Your task to perform on an android device: toggle pop-ups in chrome Image 0: 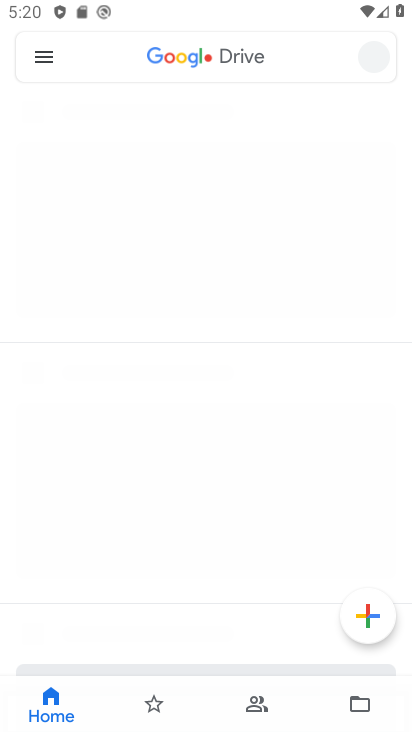
Step 0: press home button
Your task to perform on an android device: toggle pop-ups in chrome Image 1: 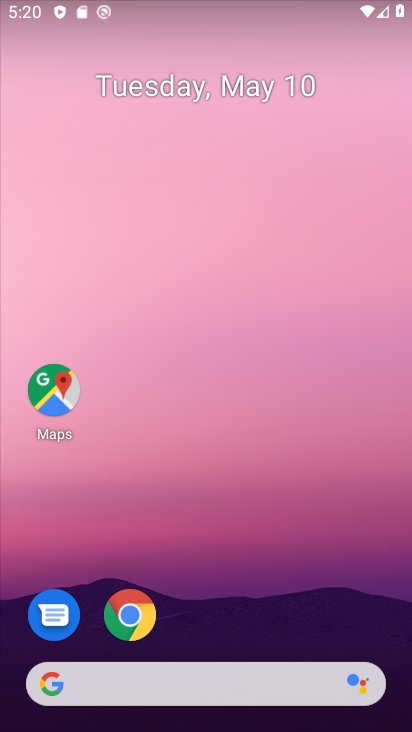
Step 1: click (147, 601)
Your task to perform on an android device: toggle pop-ups in chrome Image 2: 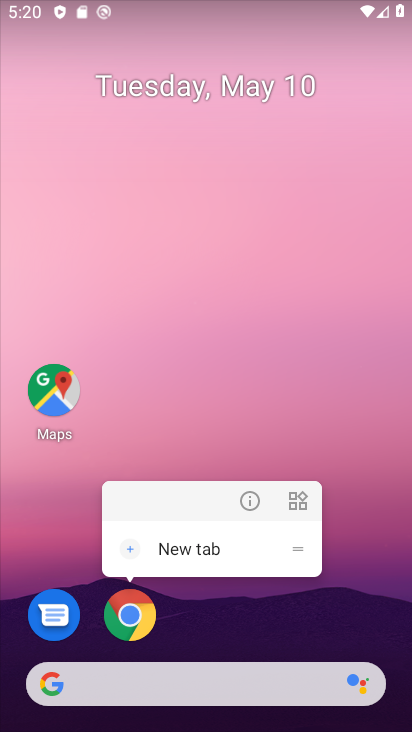
Step 2: click (239, 495)
Your task to perform on an android device: toggle pop-ups in chrome Image 3: 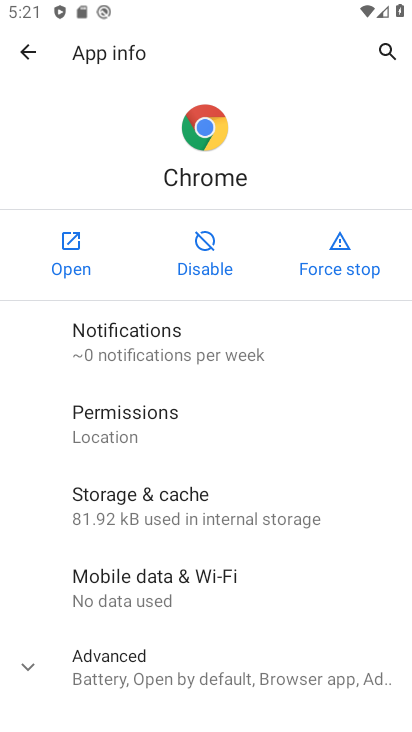
Step 3: click (67, 236)
Your task to perform on an android device: toggle pop-ups in chrome Image 4: 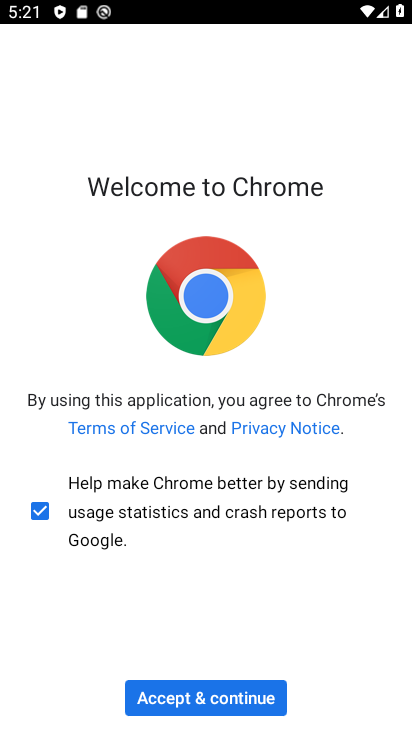
Step 4: click (268, 695)
Your task to perform on an android device: toggle pop-ups in chrome Image 5: 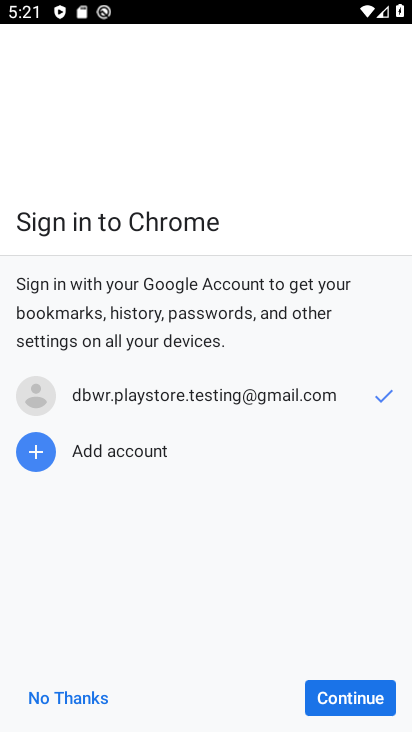
Step 5: click (353, 705)
Your task to perform on an android device: toggle pop-ups in chrome Image 6: 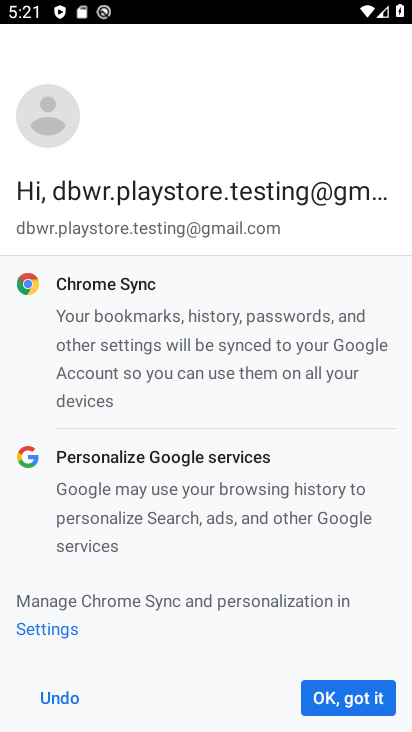
Step 6: click (353, 703)
Your task to perform on an android device: toggle pop-ups in chrome Image 7: 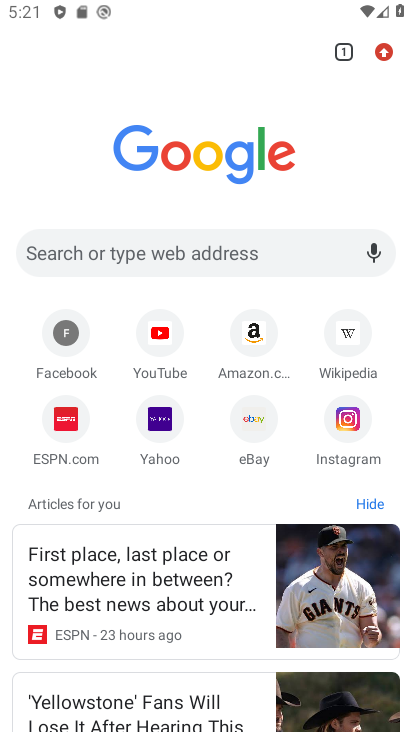
Step 7: click (388, 57)
Your task to perform on an android device: toggle pop-ups in chrome Image 8: 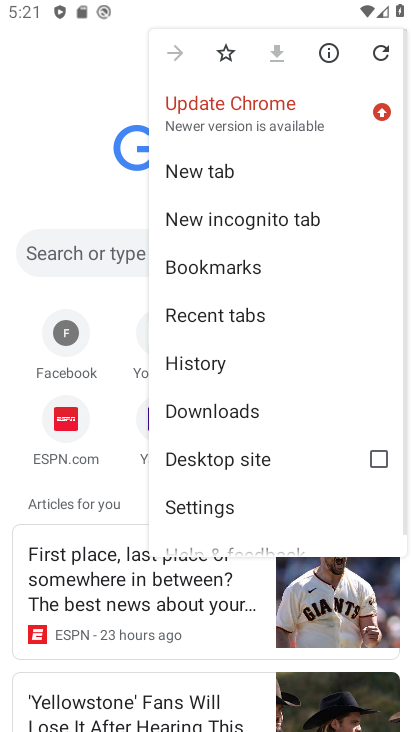
Step 8: click (207, 511)
Your task to perform on an android device: toggle pop-ups in chrome Image 9: 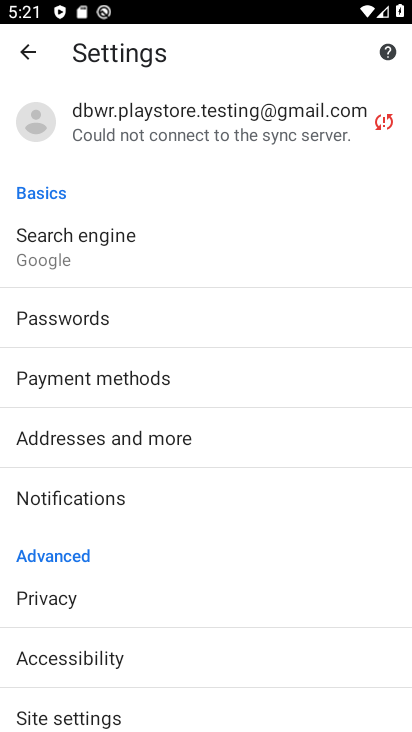
Step 9: drag from (98, 669) to (103, 459)
Your task to perform on an android device: toggle pop-ups in chrome Image 10: 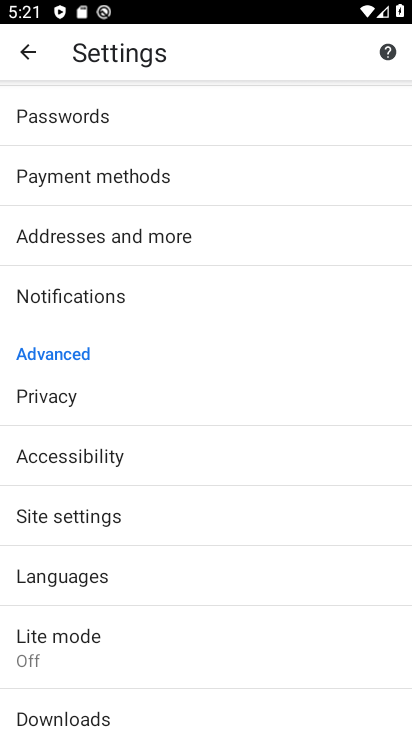
Step 10: click (89, 527)
Your task to perform on an android device: toggle pop-ups in chrome Image 11: 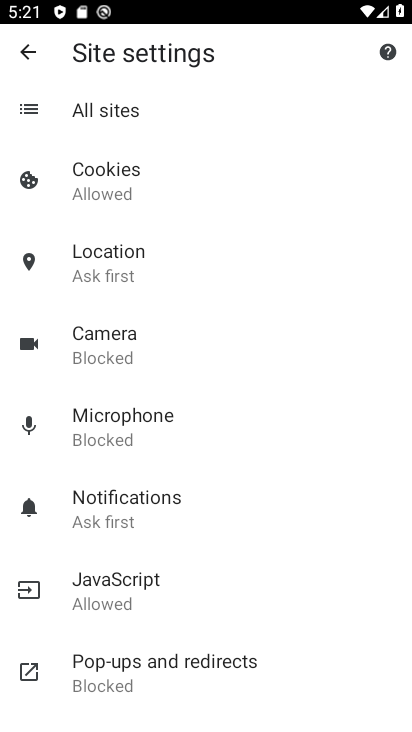
Step 11: click (131, 682)
Your task to perform on an android device: toggle pop-ups in chrome Image 12: 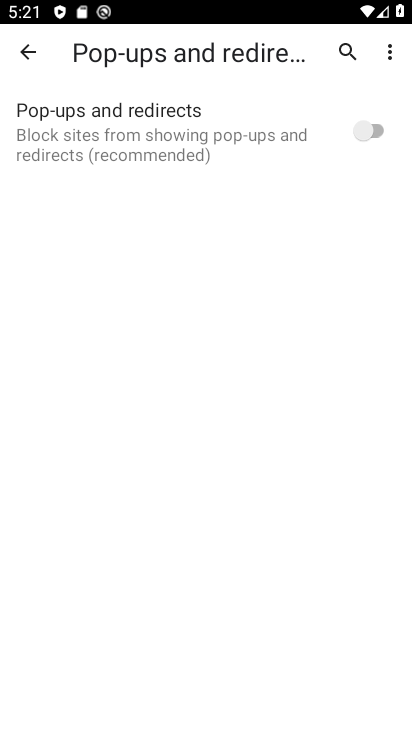
Step 12: click (397, 128)
Your task to perform on an android device: toggle pop-ups in chrome Image 13: 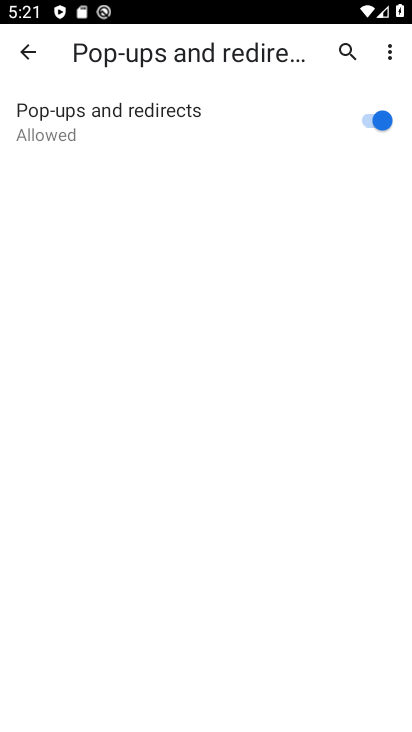
Step 13: task complete